Your task to perform on an android device: turn on improve location accuracy Image 0: 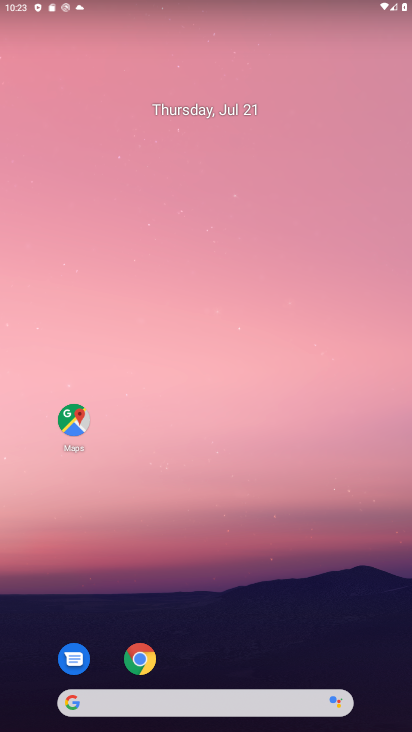
Step 0: drag from (282, 674) to (168, 0)
Your task to perform on an android device: turn on improve location accuracy Image 1: 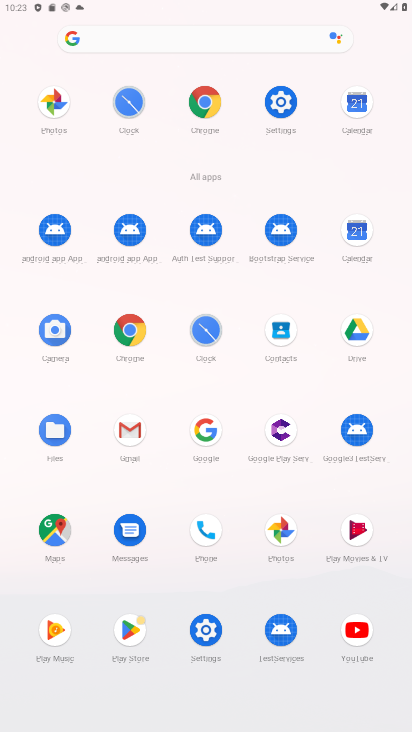
Step 1: click (271, 90)
Your task to perform on an android device: turn on improve location accuracy Image 2: 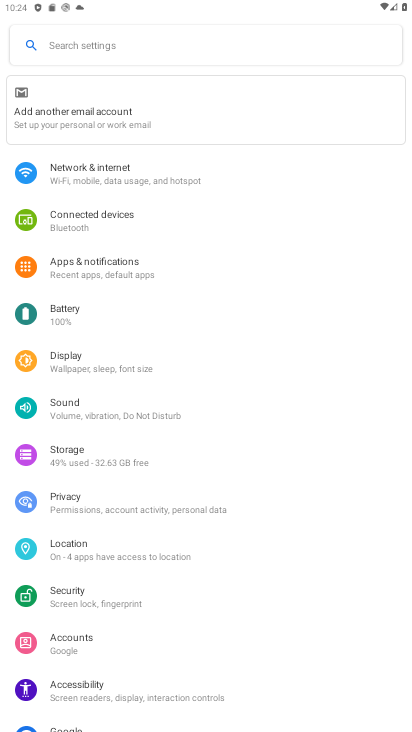
Step 2: task complete